Your task to perform on an android device: Open Amazon Image 0: 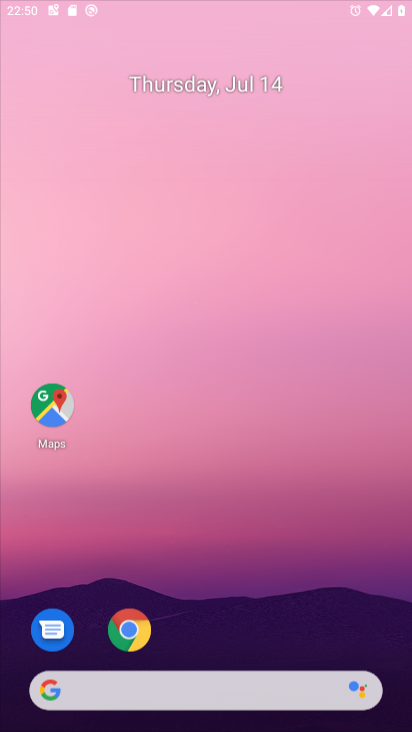
Step 0: click (164, 221)
Your task to perform on an android device: Open Amazon Image 1: 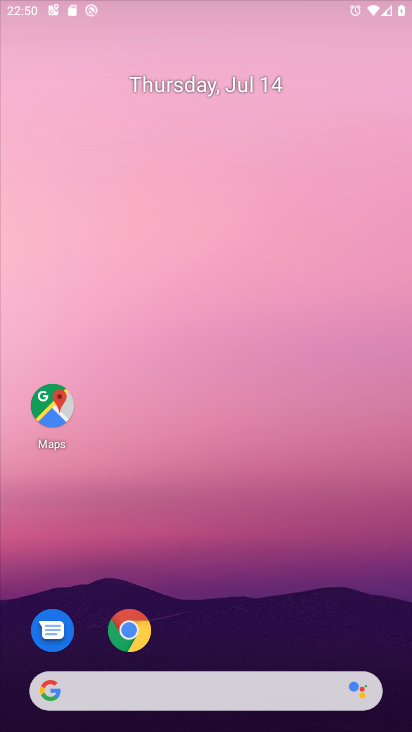
Step 1: drag from (206, 631) to (258, 224)
Your task to perform on an android device: Open Amazon Image 2: 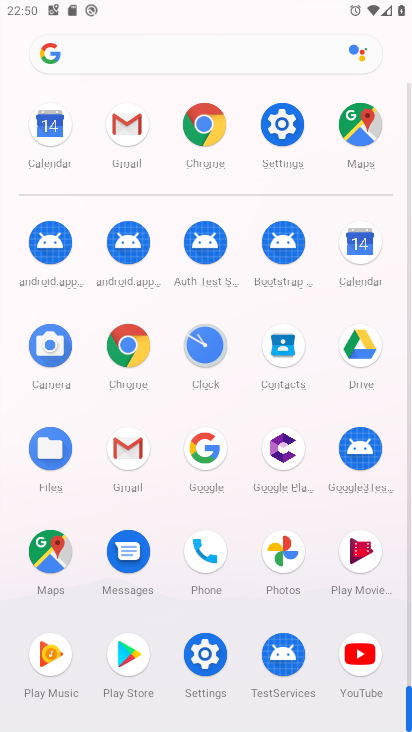
Step 2: click (200, 125)
Your task to perform on an android device: Open Amazon Image 3: 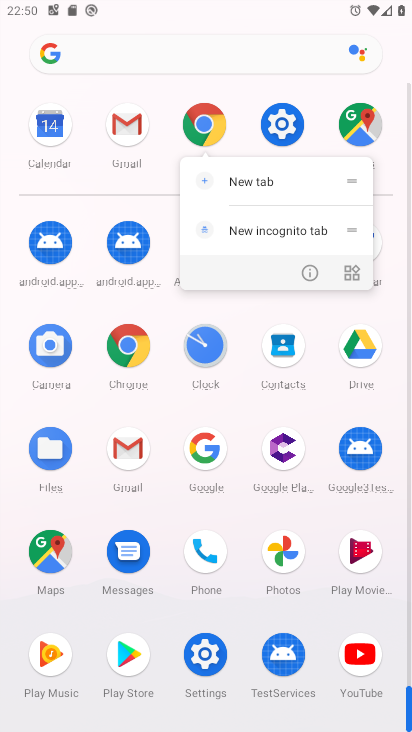
Step 3: click (305, 266)
Your task to perform on an android device: Open Amazon Image 4: 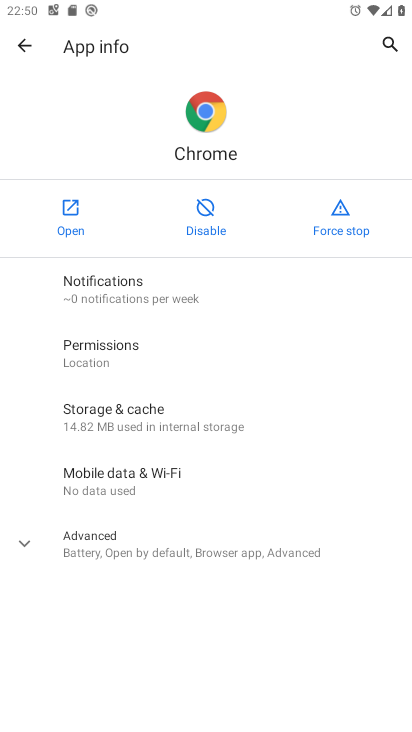
Step 4: click (62, 216)
Your task to perform on an android device: Open Amazon Image 5: 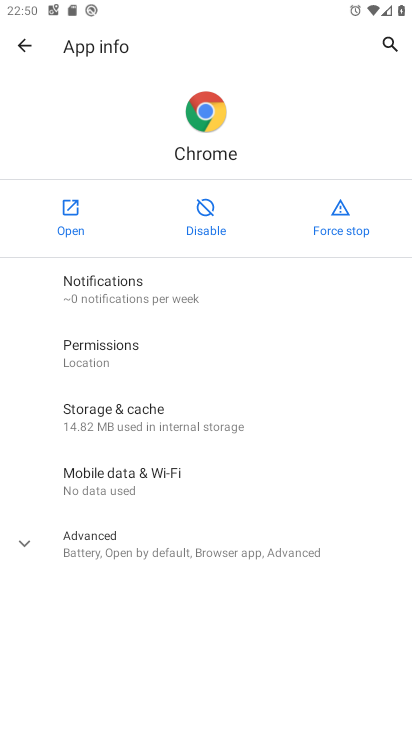
Step 5: click (62, 216)
Your task to perform on an android device: Open Amazon Image 6: 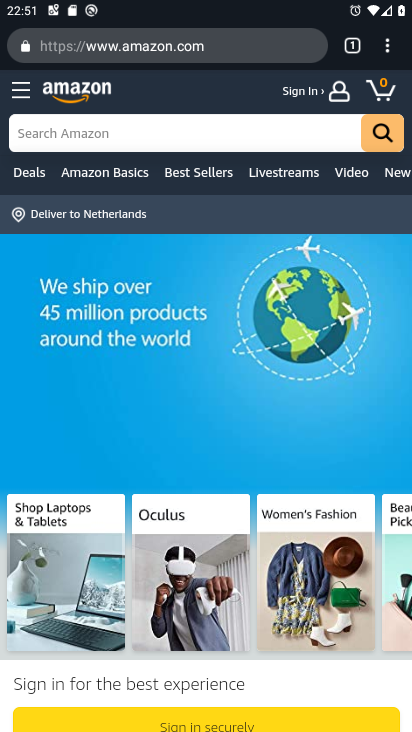
Step 6: task complete